Your task to perform on an android device: Search for jbl flip 4 on amazon.com, select the first entry, add it to the cart, then select checkout. Image 0: 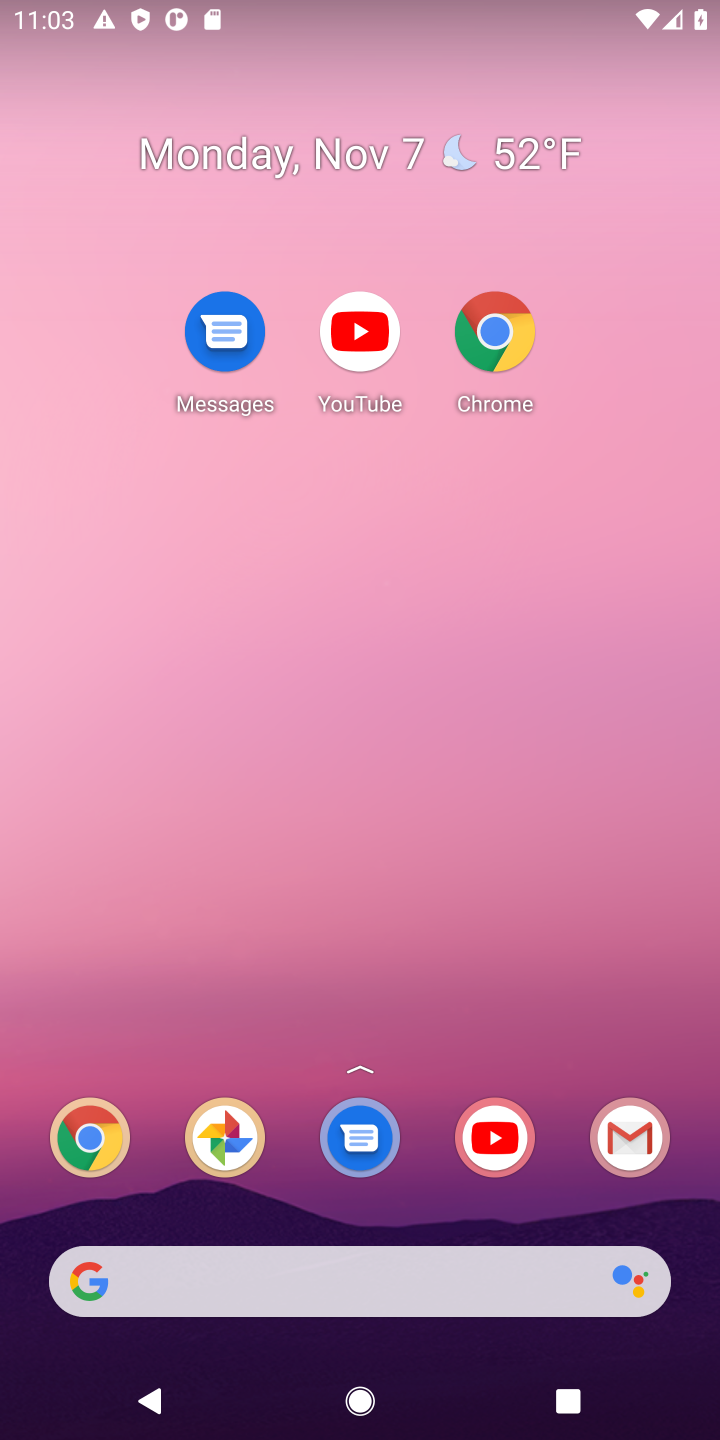
Step 0: drag from (440, 1084) to (524, 261)
Your task to perform on an android device: Search for jbl flip 4 on amazon.com, select the first entry, add it to the cart, then select checkout. Image 1: 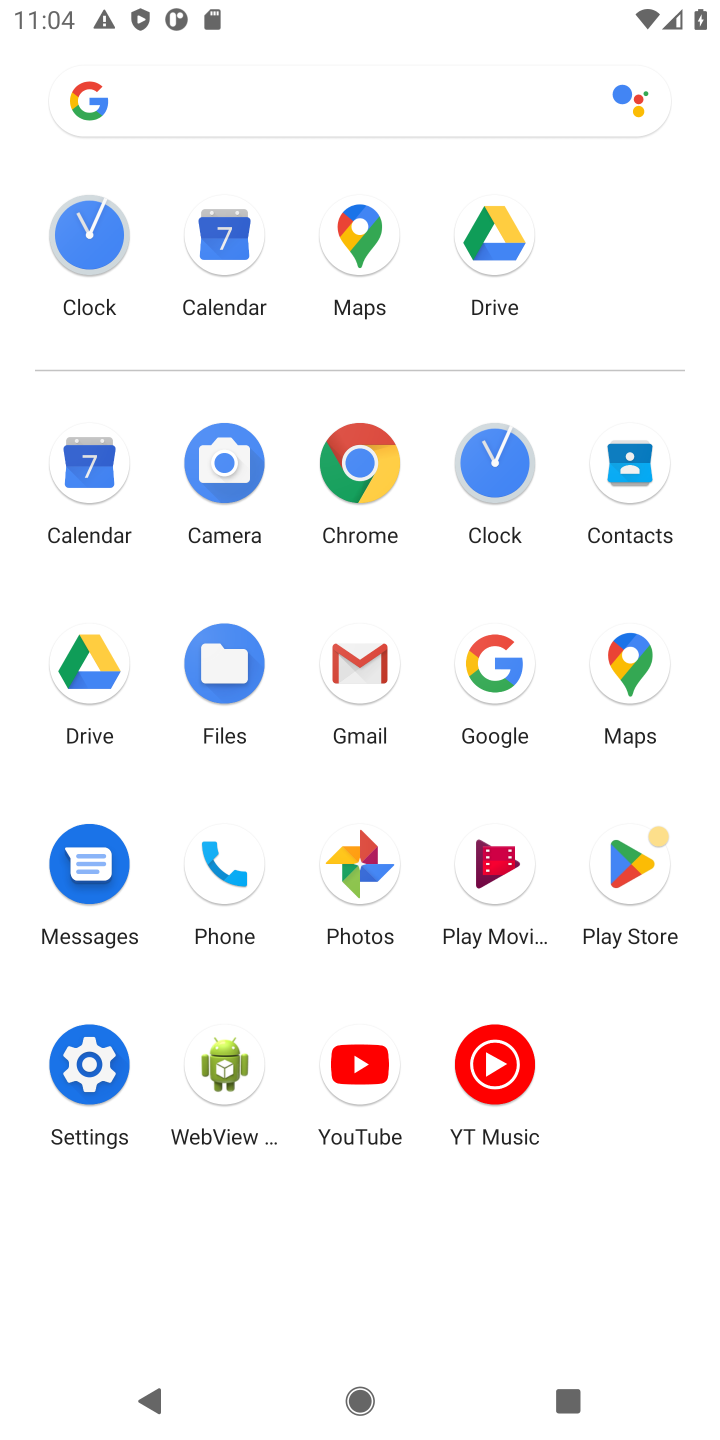
Step 1: click (363, 456)
Your task to perform on an android device: Search for jbl flip 4 on amazon.com, select the first entry, add it to the cart, then select checkout. Image 2: 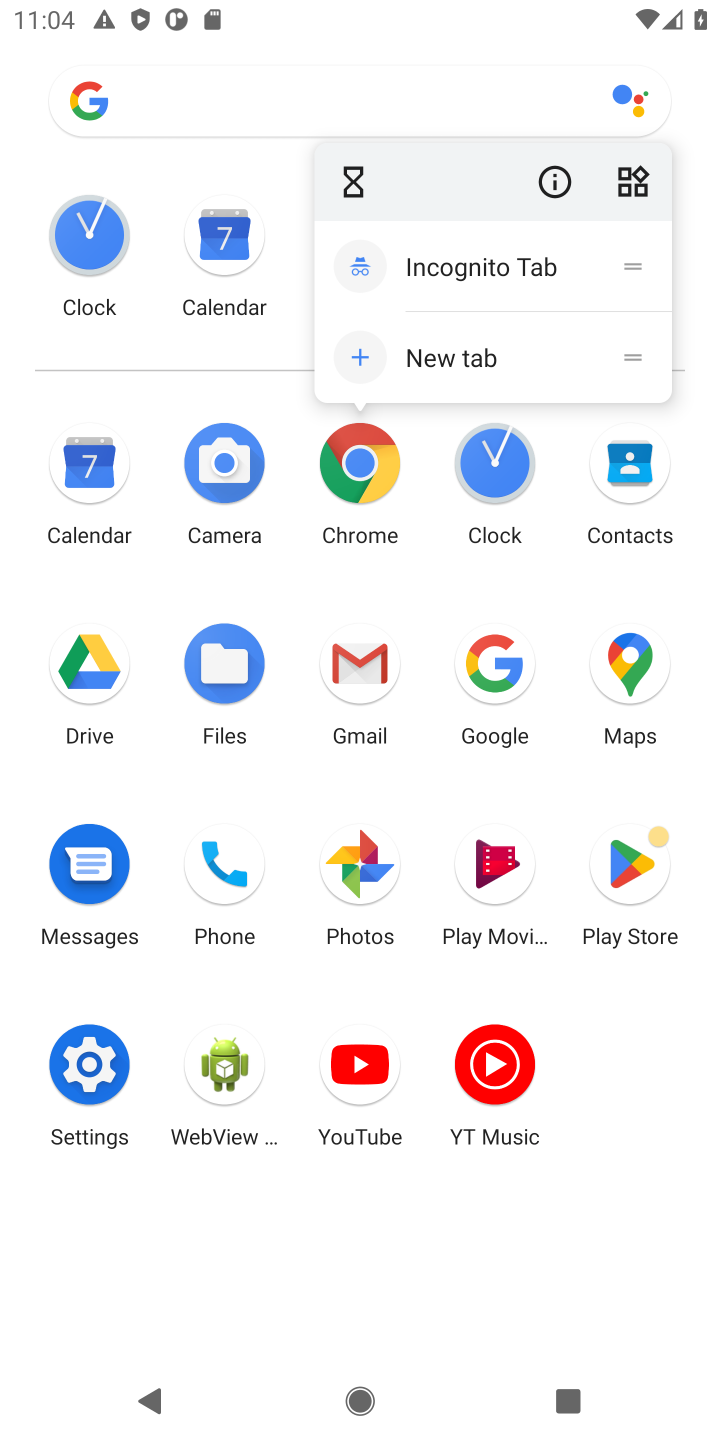
Step 2: click (346, 459)
Your task to perform on an android device: Search for jbl flip 4 on amazon.com, select the first entry, add it to the cart, then select checkout. Image 3: 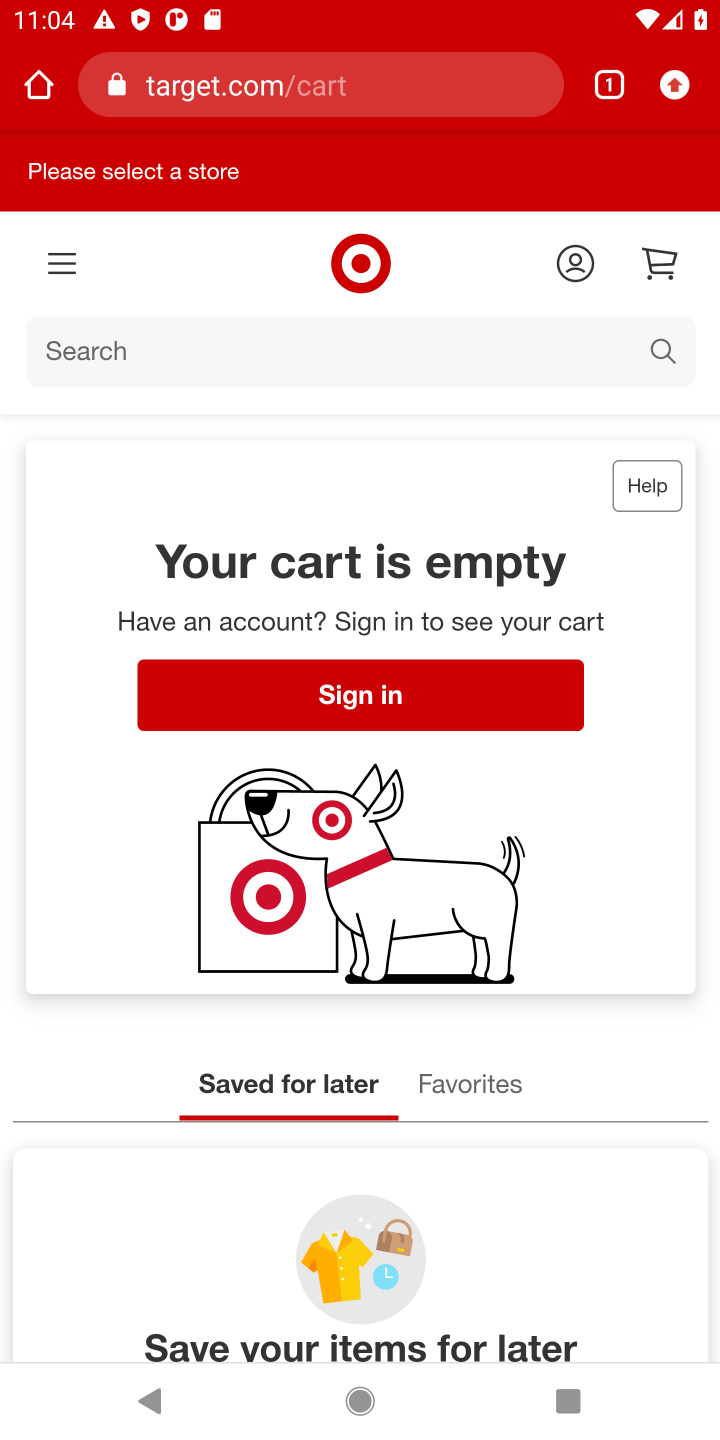
Step 3: click (396, 69)
Your task to perform on an android device: Search for jbl flip 4 on amazon.com, select the first entry, add it to the cart, then select checkout. Image 4: 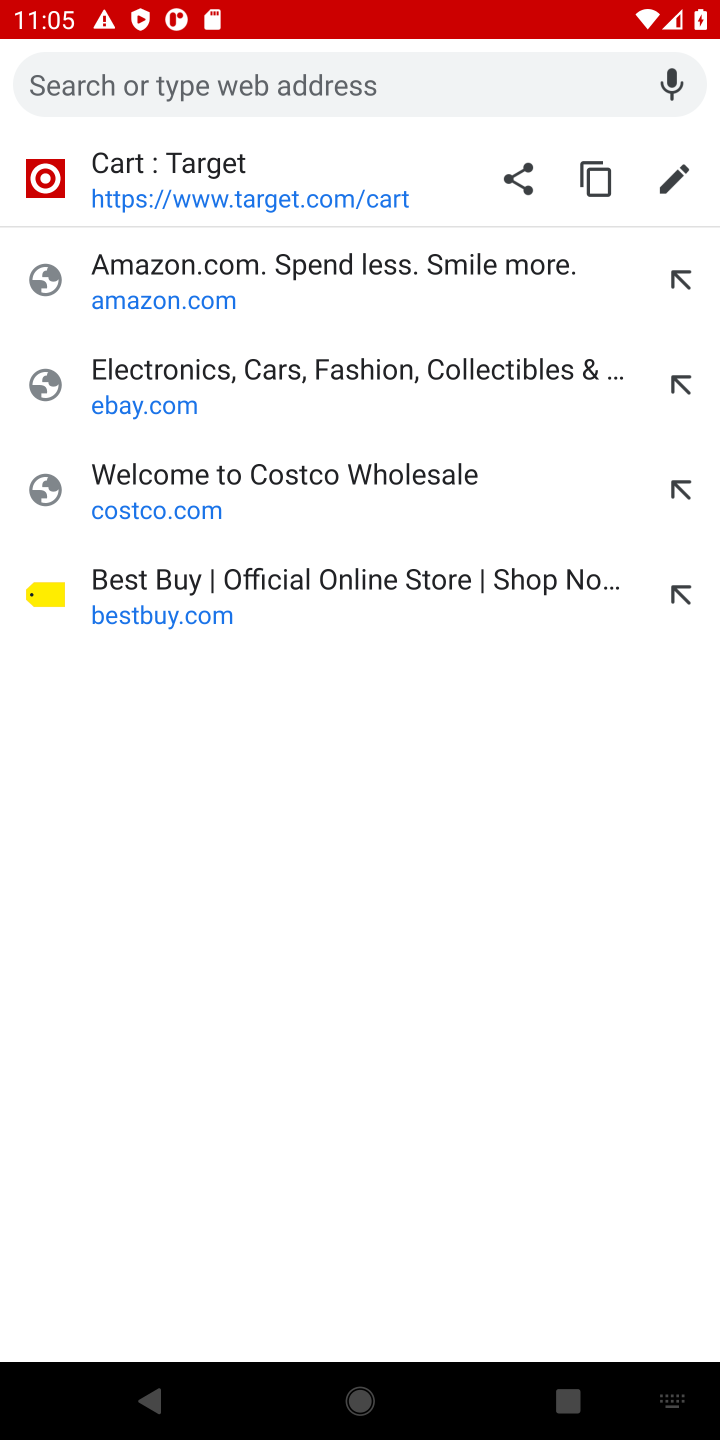
Step 4: type "amazon.com"
Your task to perform on an android device: Search for jbl flip 4 on amazon.com, select the first entry, add it to the cart, then select checkout. Image 5: 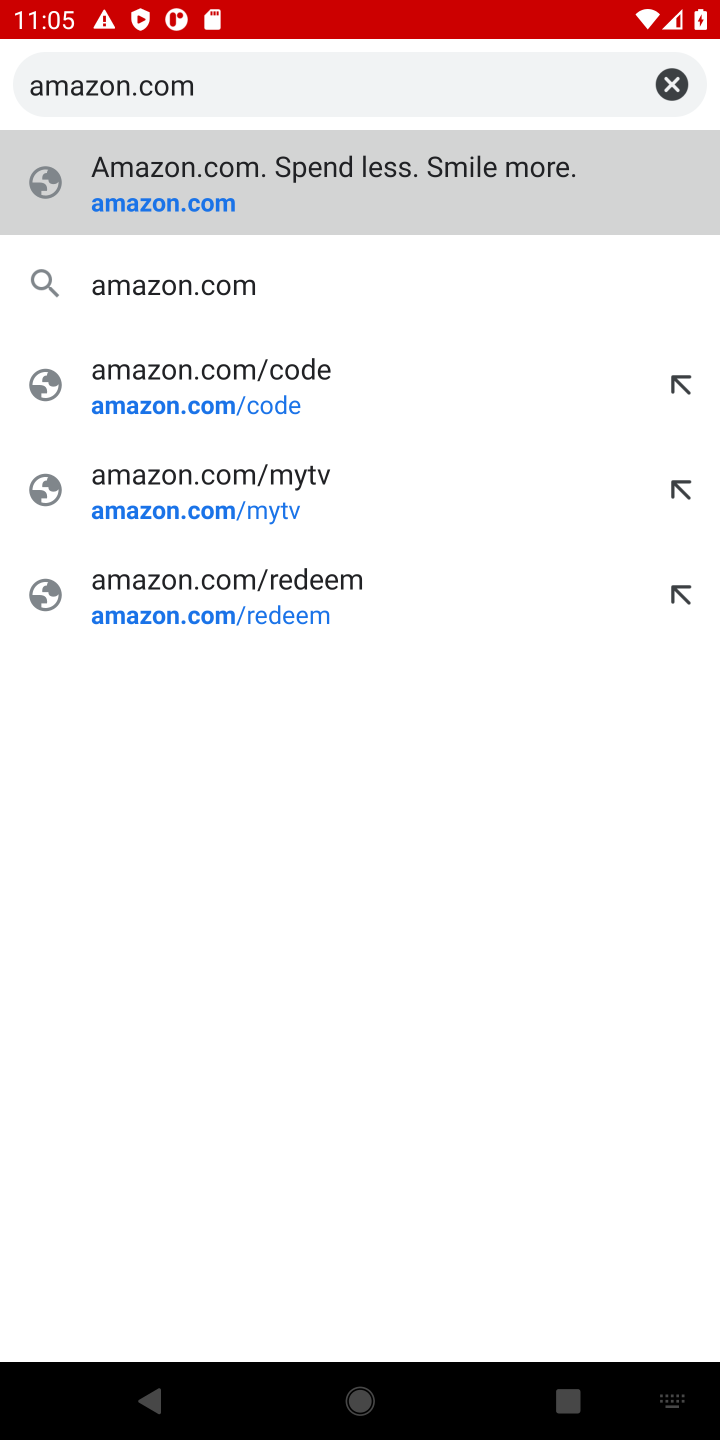
Step 5: press enter
Your task to perform on an android device: Search for jbl flip 4 on amazon.com, select the first entry, add it to the cart, then select checkout. Image 6: 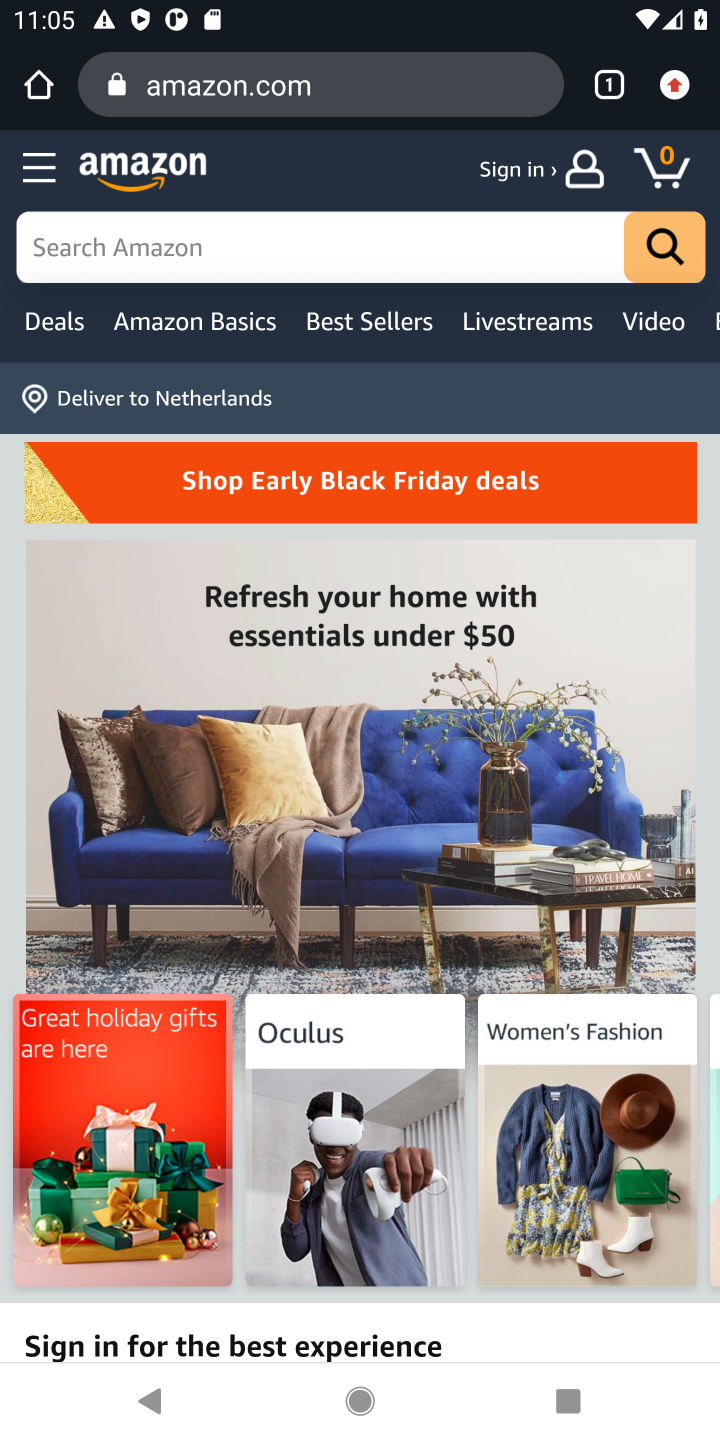
Step 6: click (379, 260)
Your task to perform on an android device: Search for jbl flip 4 on amazon.com, select the first entry, add it to the cart, then select checkout. Image 7: 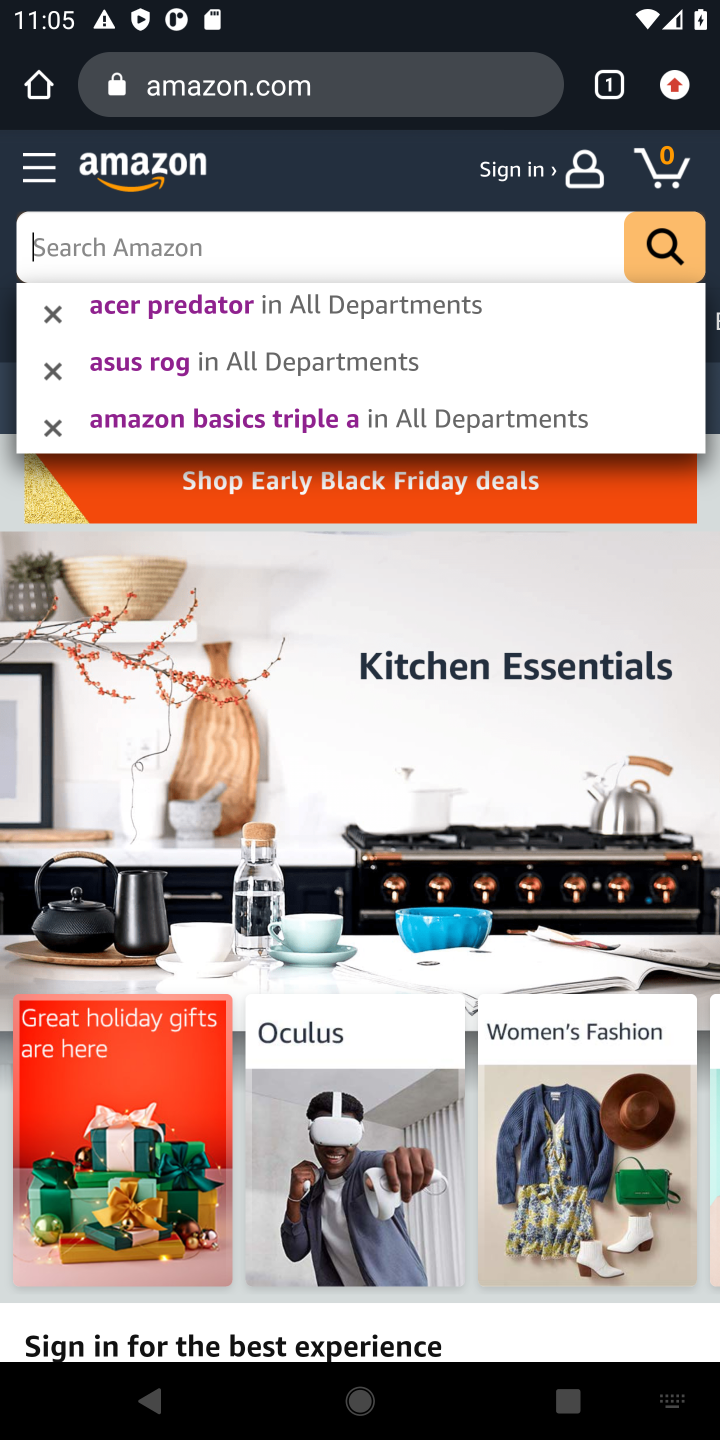
Step 7: type "jbl flip 4"
Your task to perform on an android device: Search for jbl flip 4 on amazon.com, select the first entry, add it to the cart, then select checkout. Image 8: 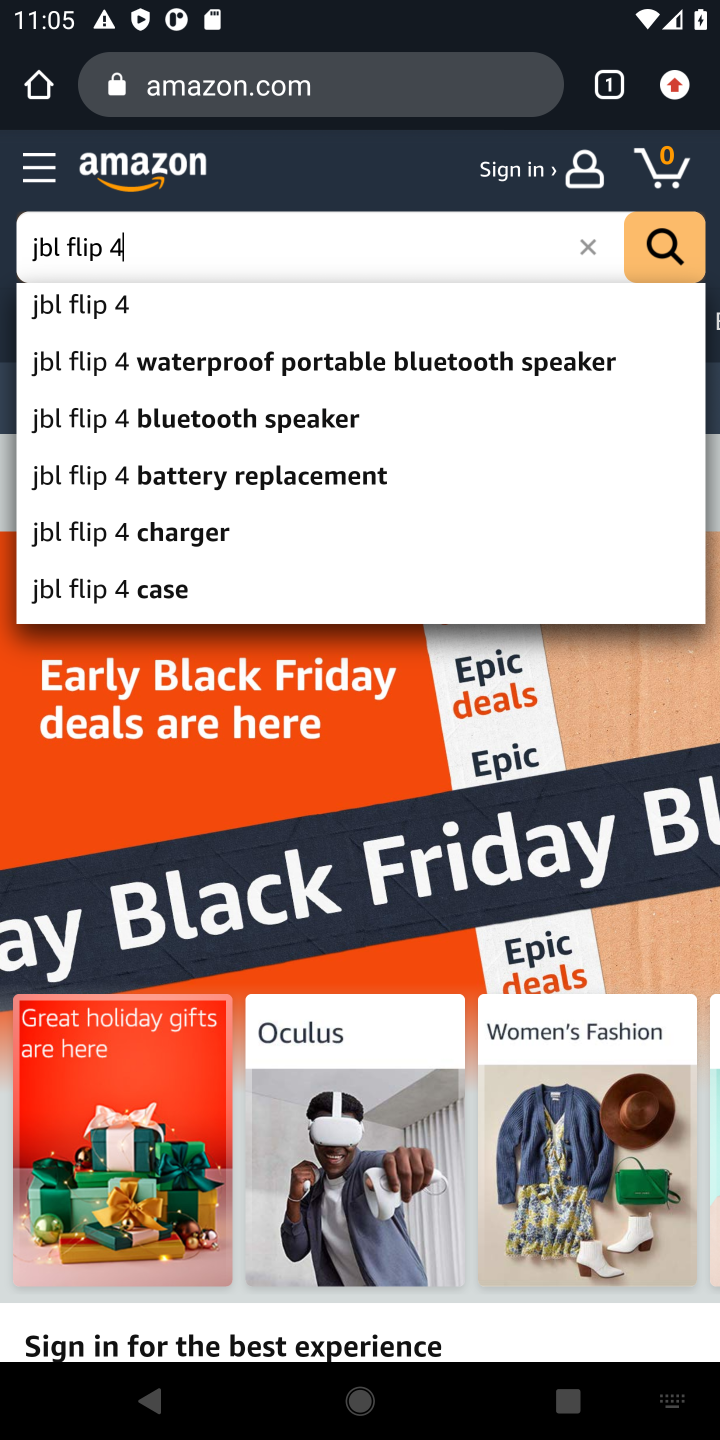
Step 8: press enter
Your task to perform on an android device: Search for jbl flip 4 on amazon.com, select the first entry, add it to the cart, then select checkout. Image 9: 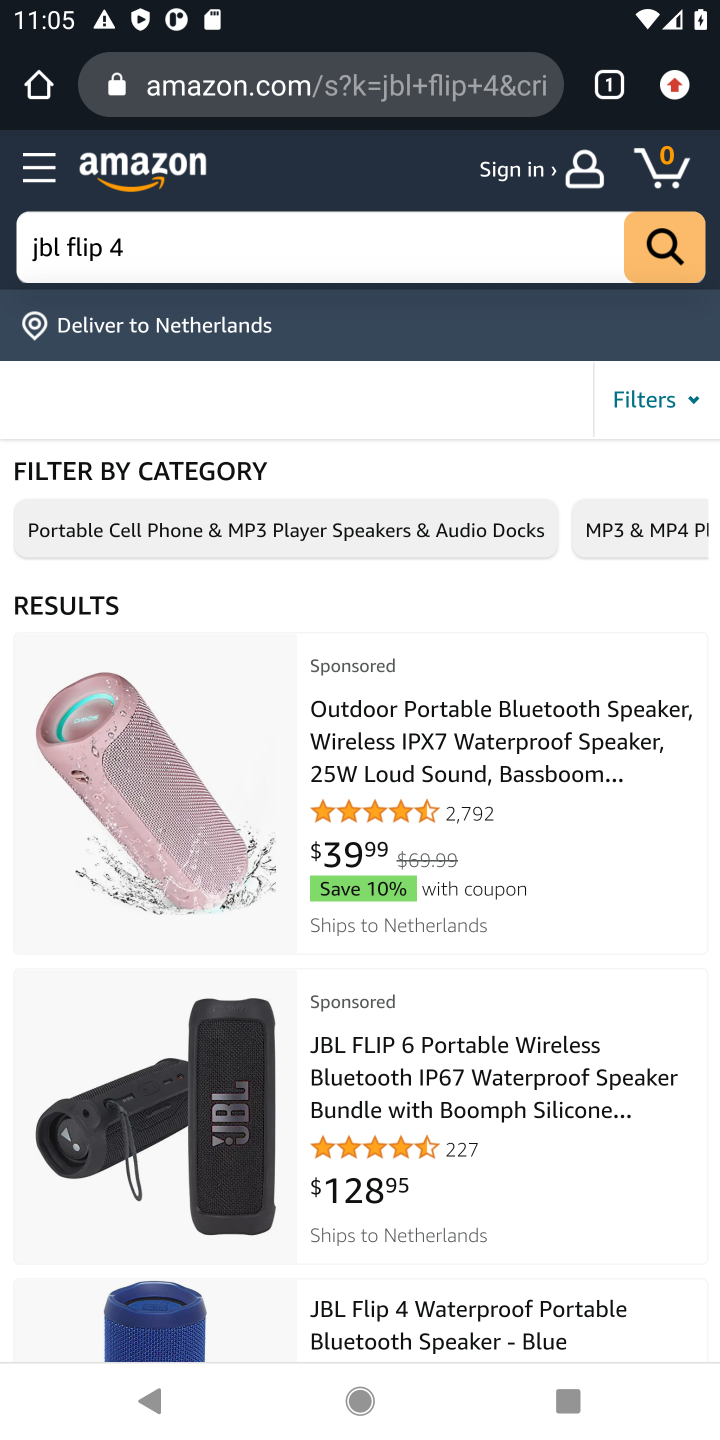
Step 9: drag from (481, 1202) to (495, 482)
Your task to perform on an android device: Search for jbl flip 4 on amazon.com, select the first entry, add it to the cart, then select checkout. Image 10: 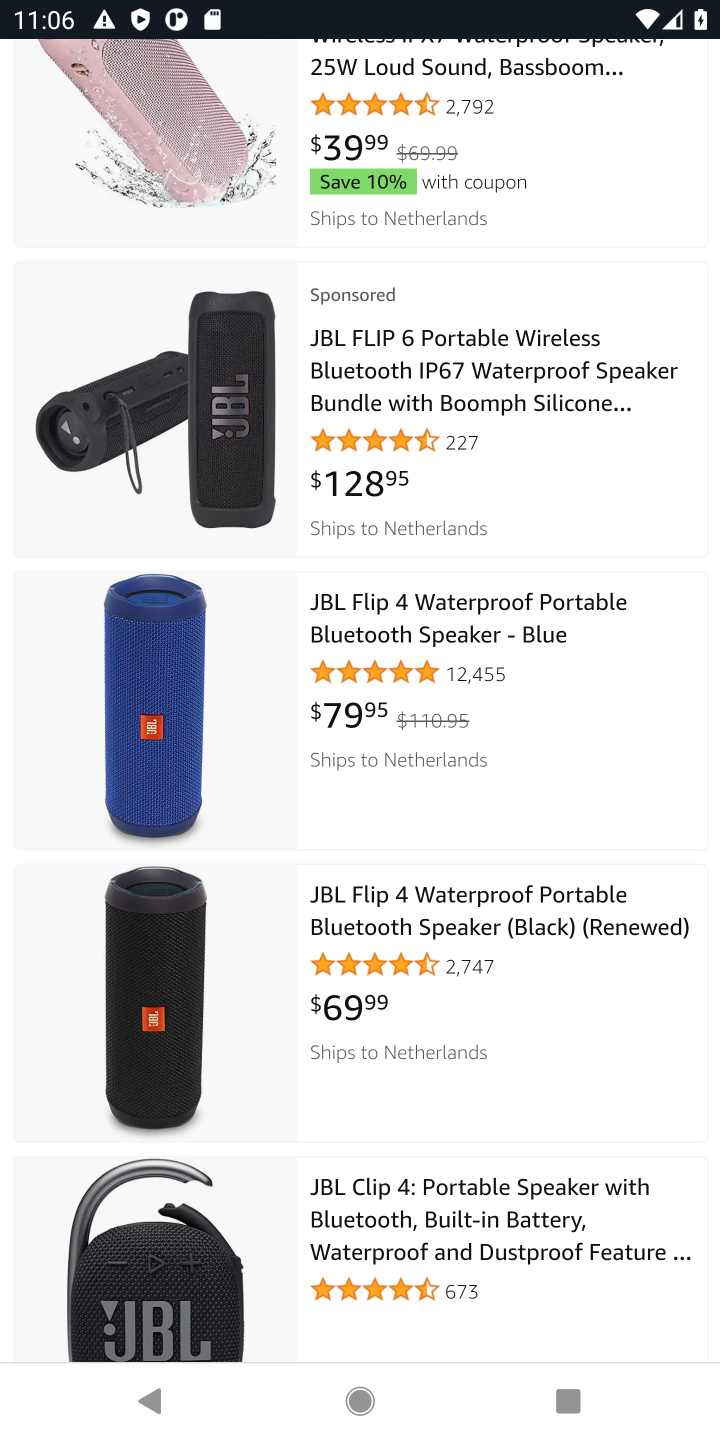
Step 10: click (457, 646)
Your task to perform on an android device: Search for jbl flip 4 on amazon.com, select the first entry, add it to the cart, then select checkout. Image 11: 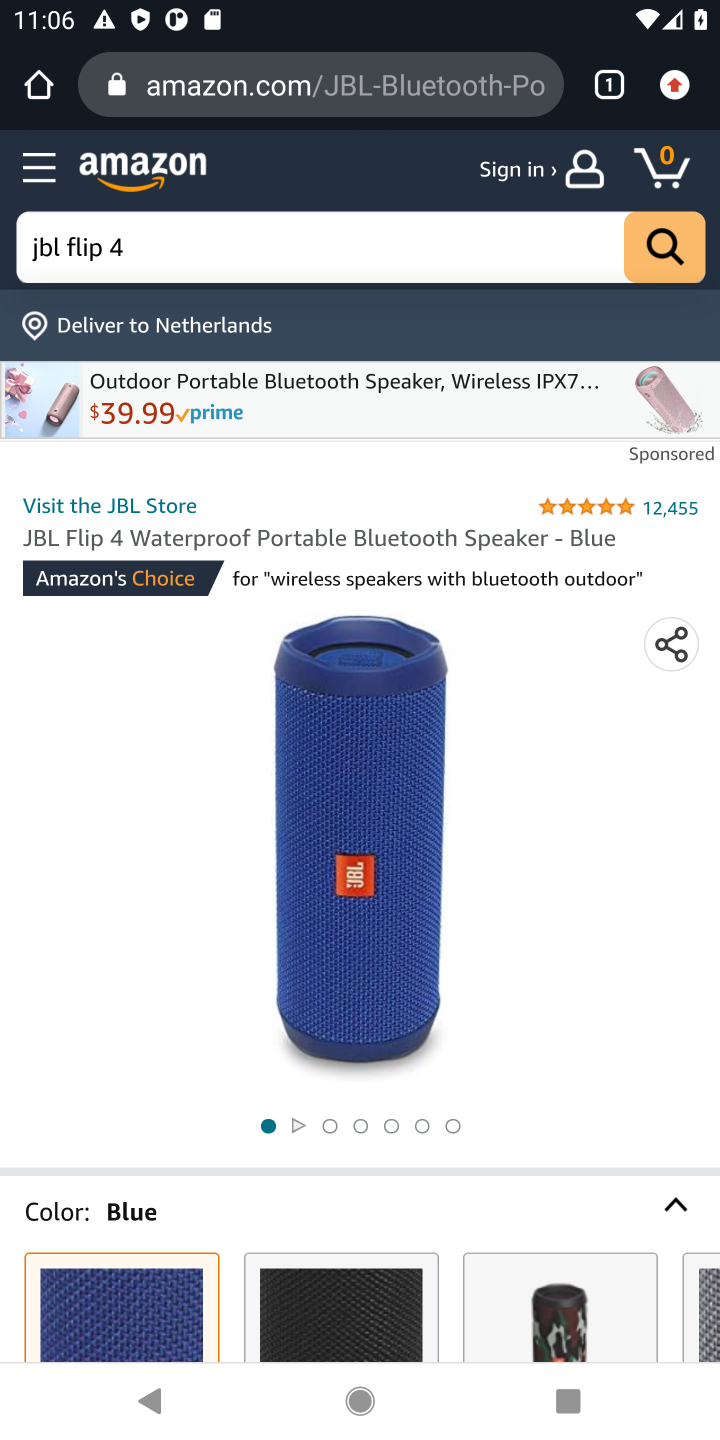
Step 11: drag from (535, 956) to (541, 3)
Your task to perform on an android device: Search for jbl flip 4 on amazon.com, select the first entry, add it to the cart, then select checkout. Image 12: 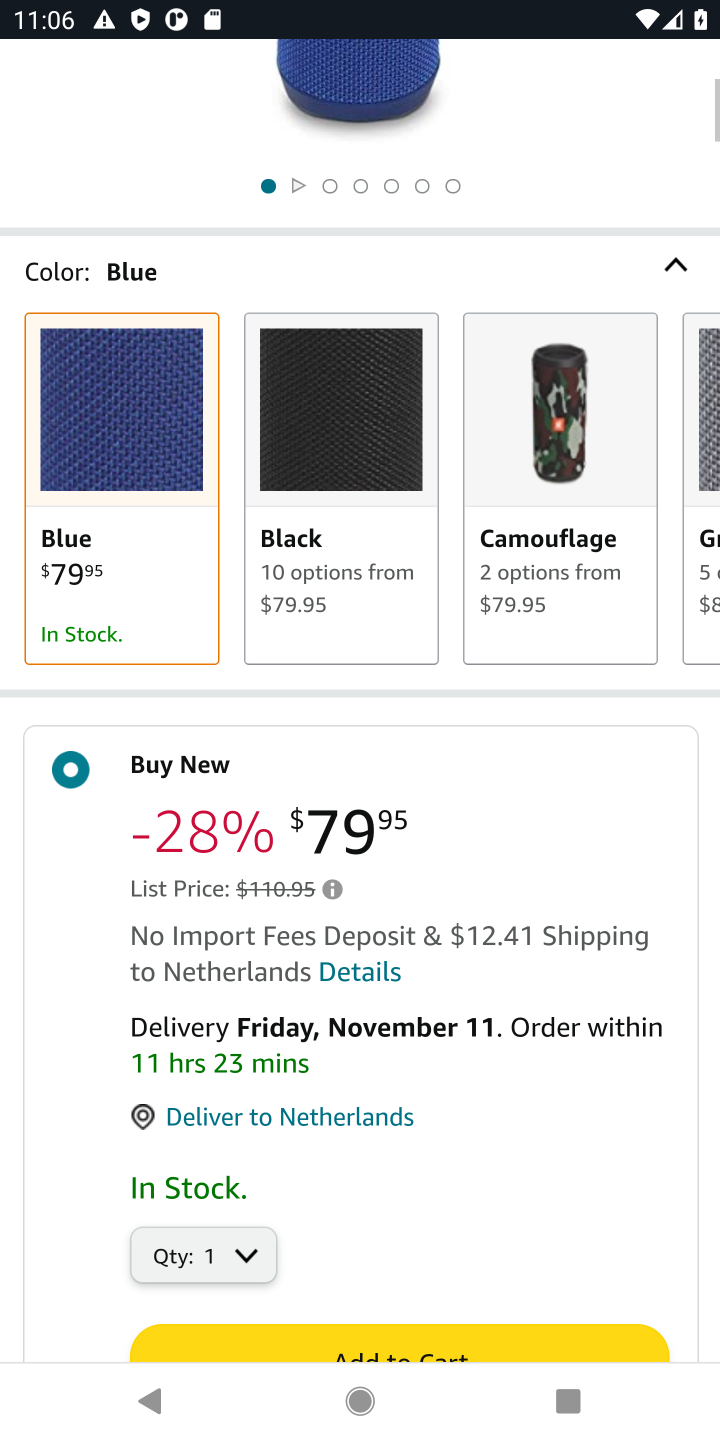
Step 12: drag from (505, 937) to (553, 381)
Your task to perform on an android device: Search for jbl flip 4 on amazon.com, select the first entry, add it to the cart, then select checkout. Image 13: 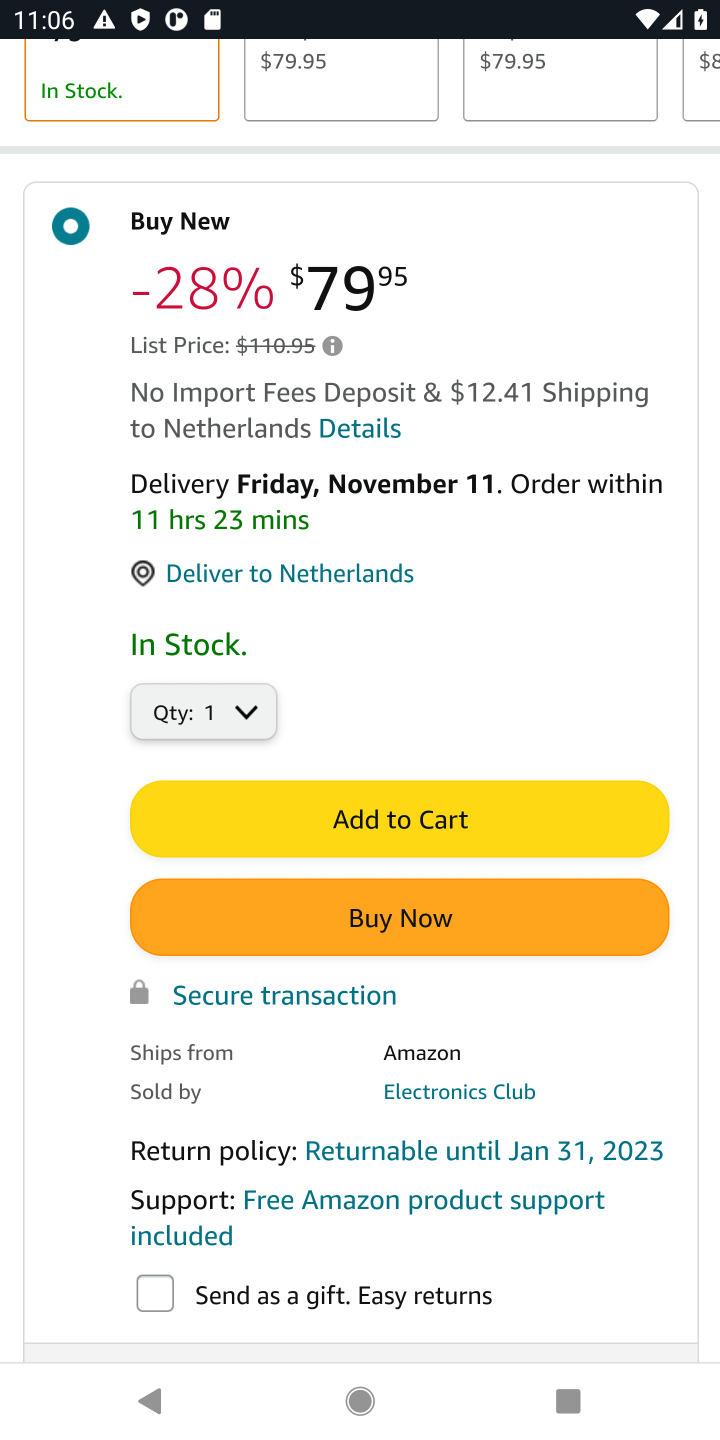
Step 13: click (522, 817)
Your task to perform on an android device: Search for jbl flip 4 on amazon.com, select the first entry, add it to the cart, then select checkout. Image 14: 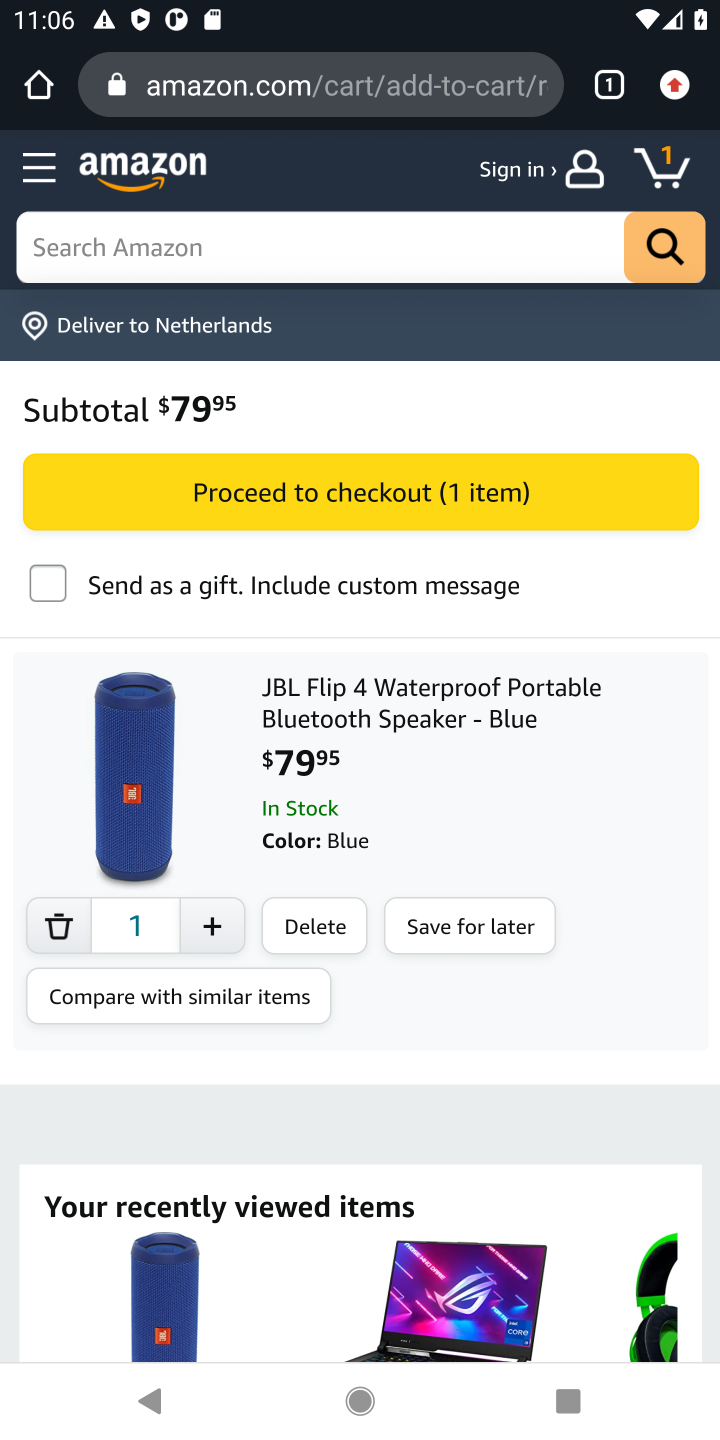
Step 14: click (455, 490)
Your task to perform on an android device: Search for jbl flip 4 on amazon.com, select the first entry, add it to the cart, then select checkout. Image 15: 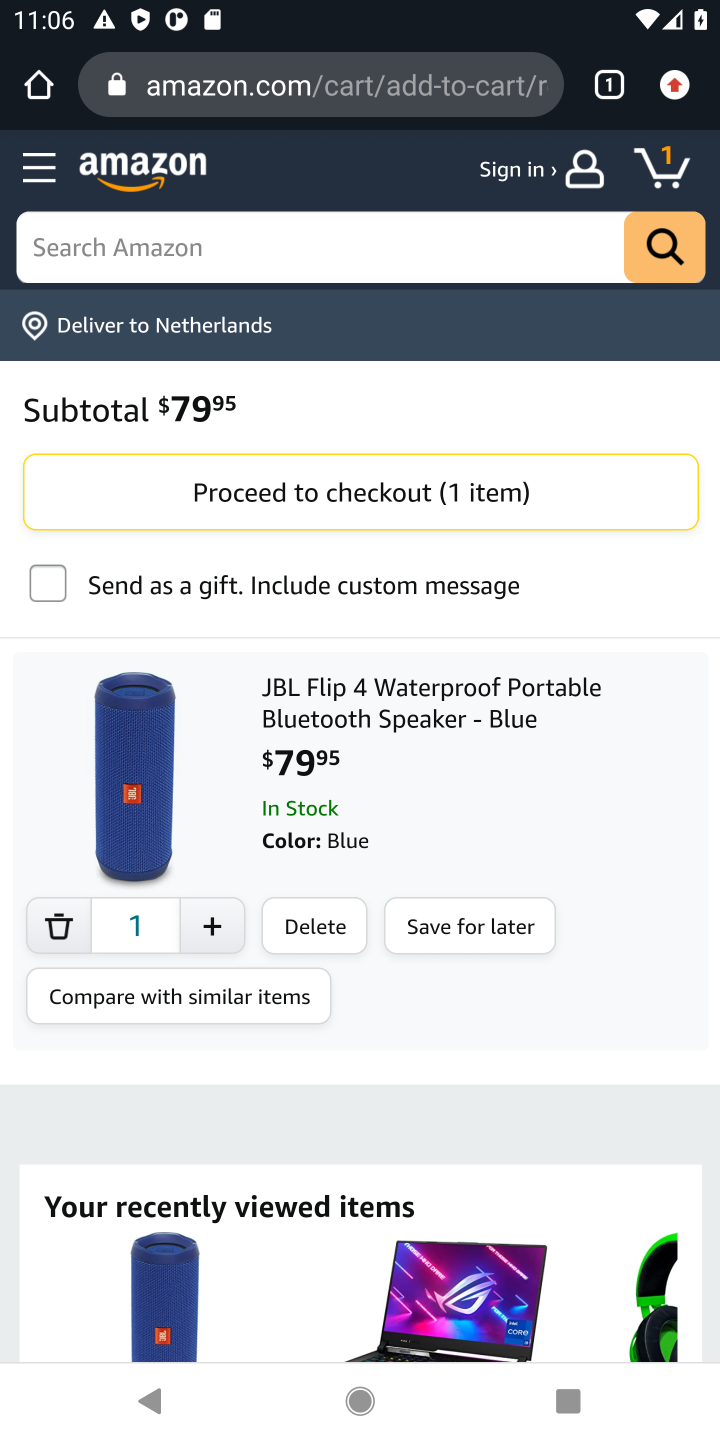
Step 15: task complete